Your task to perform on an android device: see creations saved in the google photos Image 0: 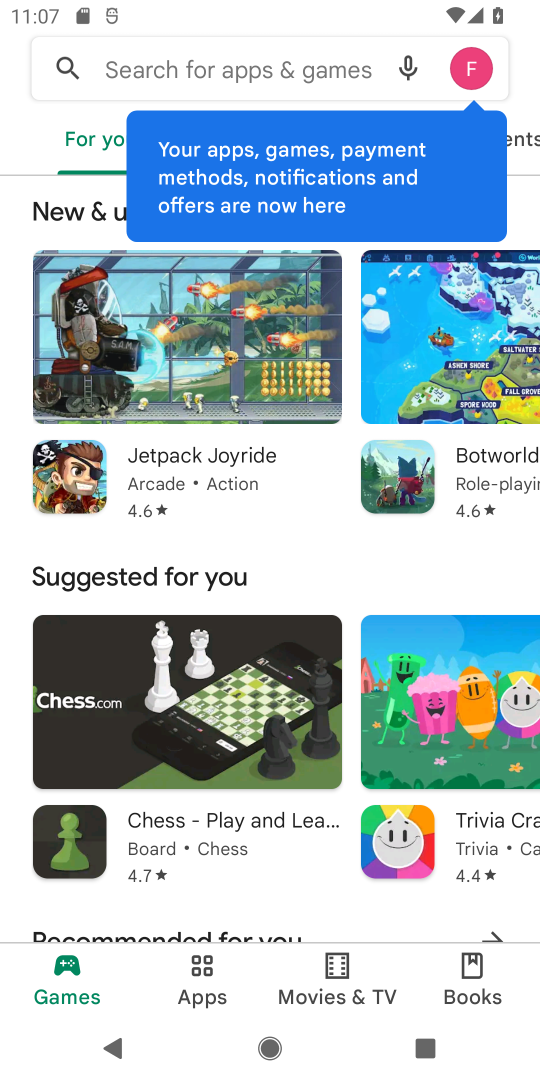
Step 0: press home button
Your task to perform on an android device: see creations saved in the google photos Image 1: 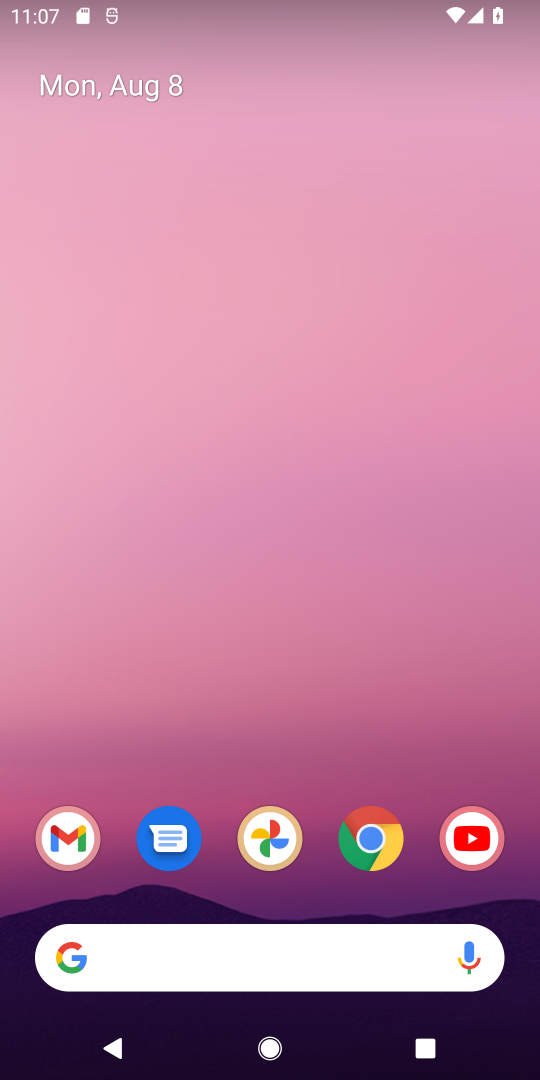
Step 1: click (278, 852)
Your task to perform on an android device: see creations saved in the google photos Image 2: 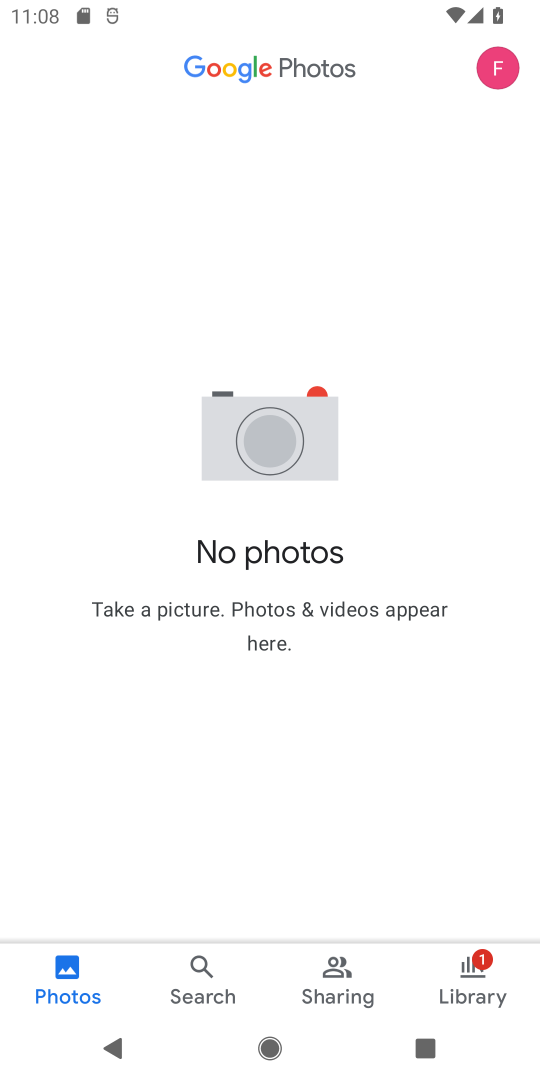
Step 2: click (202, 981)
Your task to perform on an android device: see creations saved in the google photos Image 3: 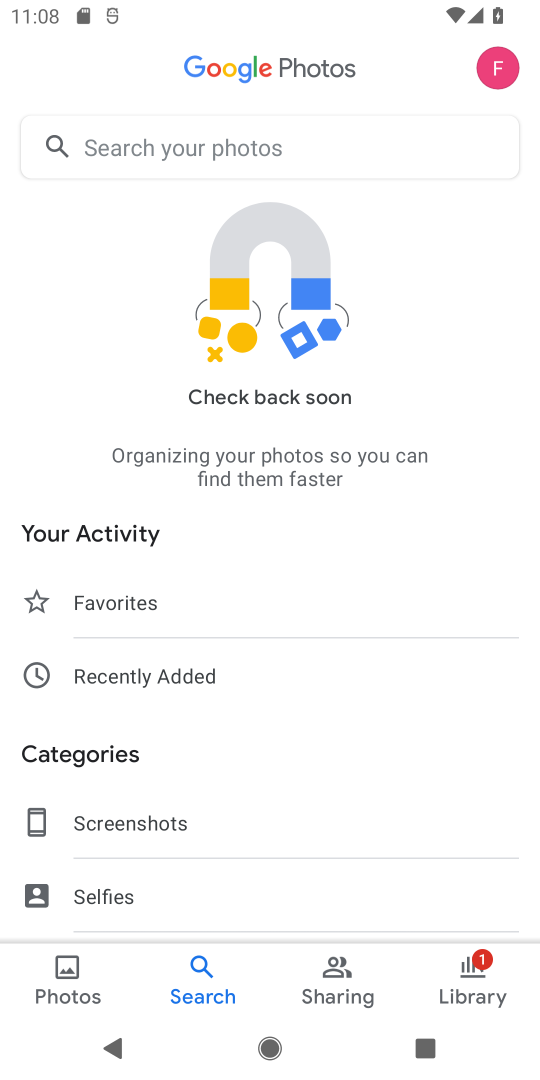
Step 3: drag from (316, 876) to (306, 407)
Your task to perform on an android device: see creations saved in the google photos Image 4: 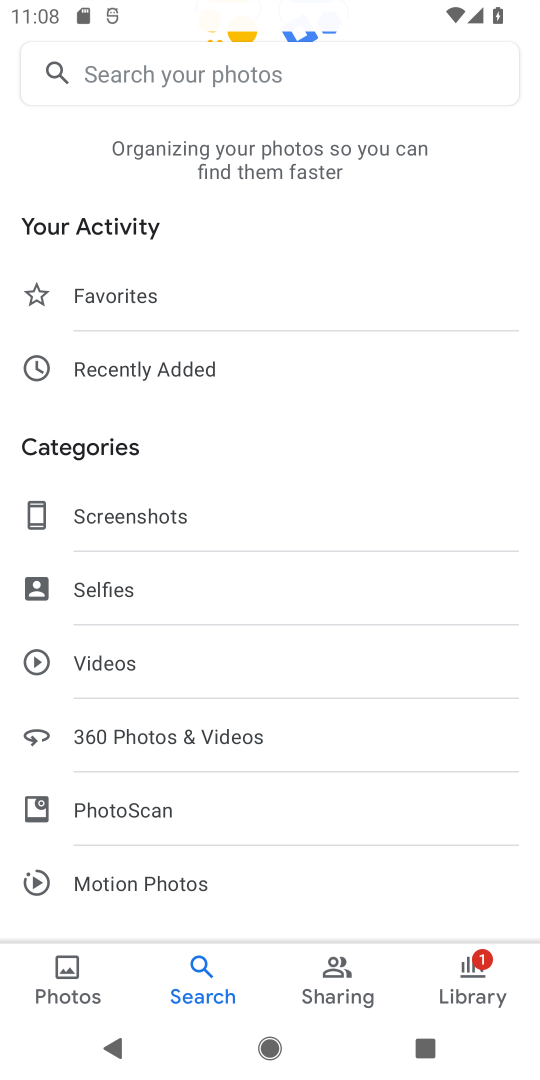
Step 4: drag from (209, 863) to (140, 440)
Your task to perform on an android device: see creations saved in the google photos Image 5: 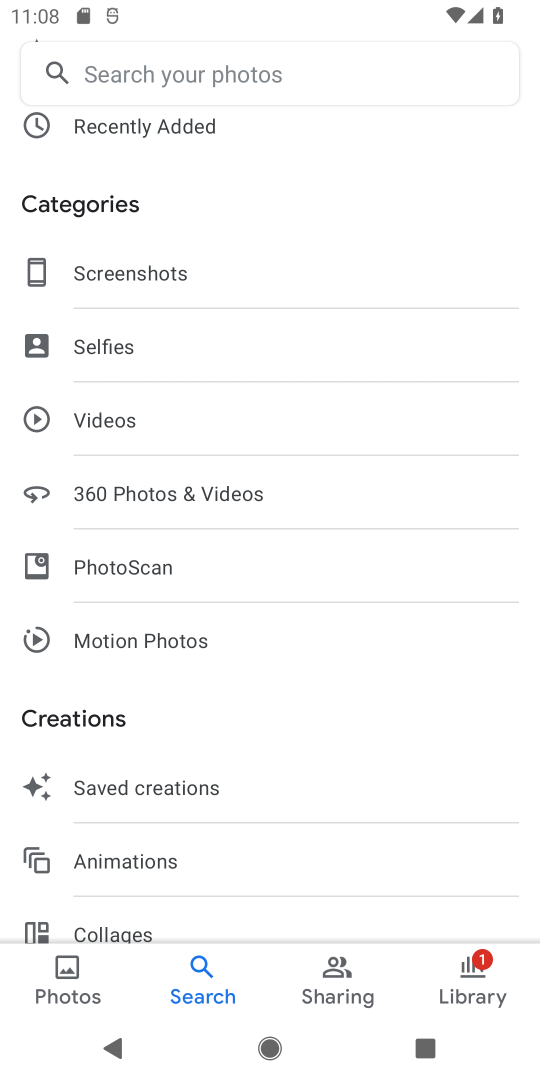
Step 5: click (195, 786)
Your task to perform on an android device: see creations saved in the google photos Image 6: 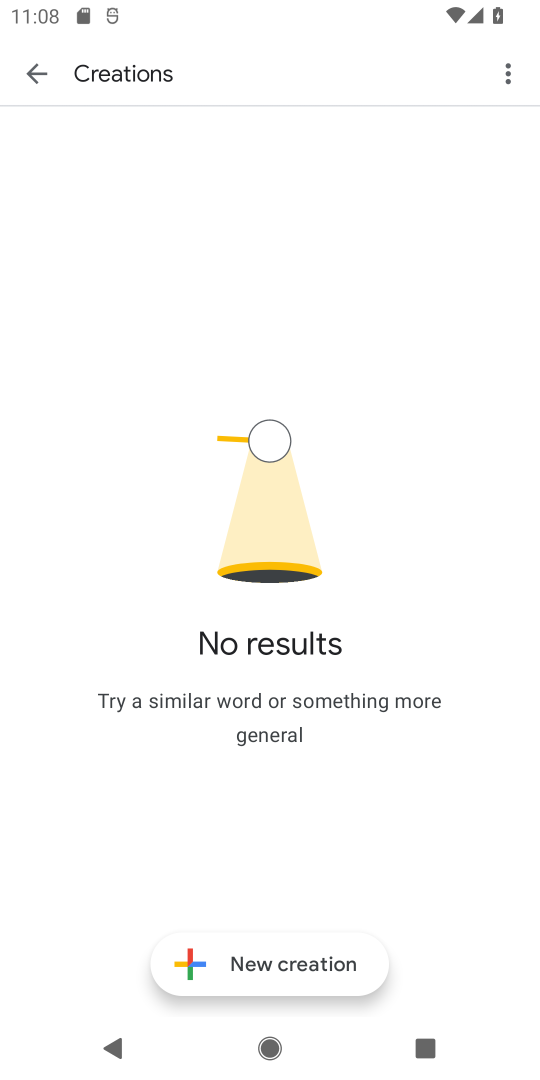
Step 6: task complete